Your task to perform on an android device: Search for logitech g933 on walmart, select the first entry, and add it to the cart. Image 0: 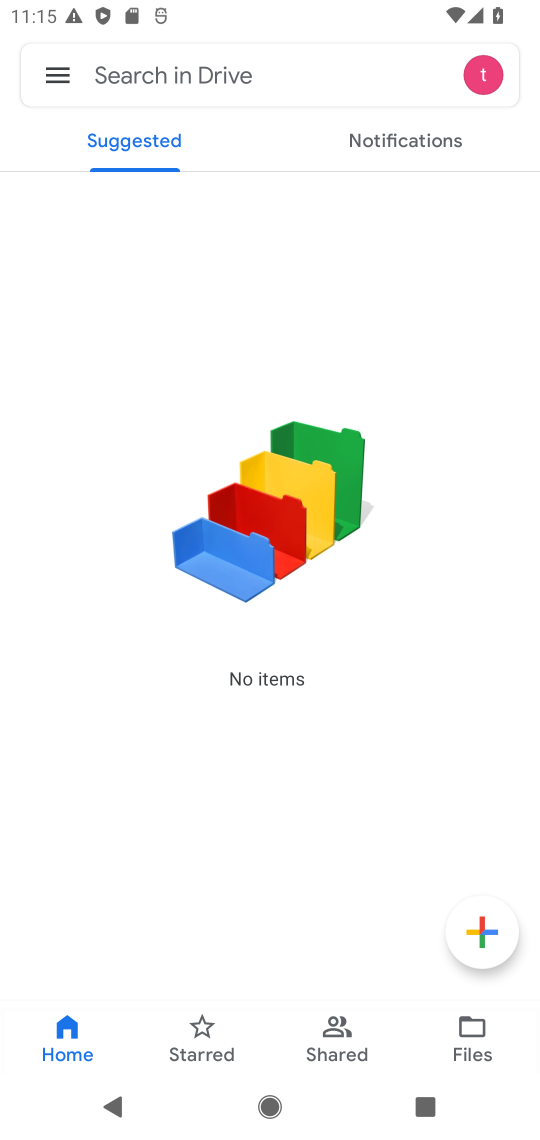
Step 0: press home button
Your task to perform on an android device: Search for logitech g933 on walmart, select the first entry, and add it to the cart. Image 1: 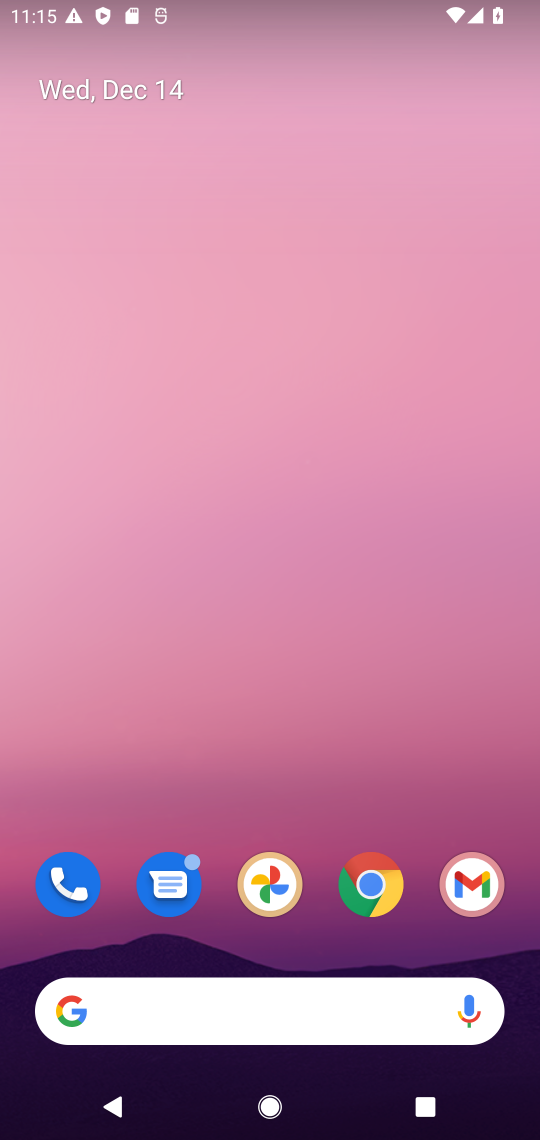
Step 1: click (376, 897)
Your task to perform on an android device: Search for logitech g933 on walmart, select the first entry, and add it to the cart. Image 2: 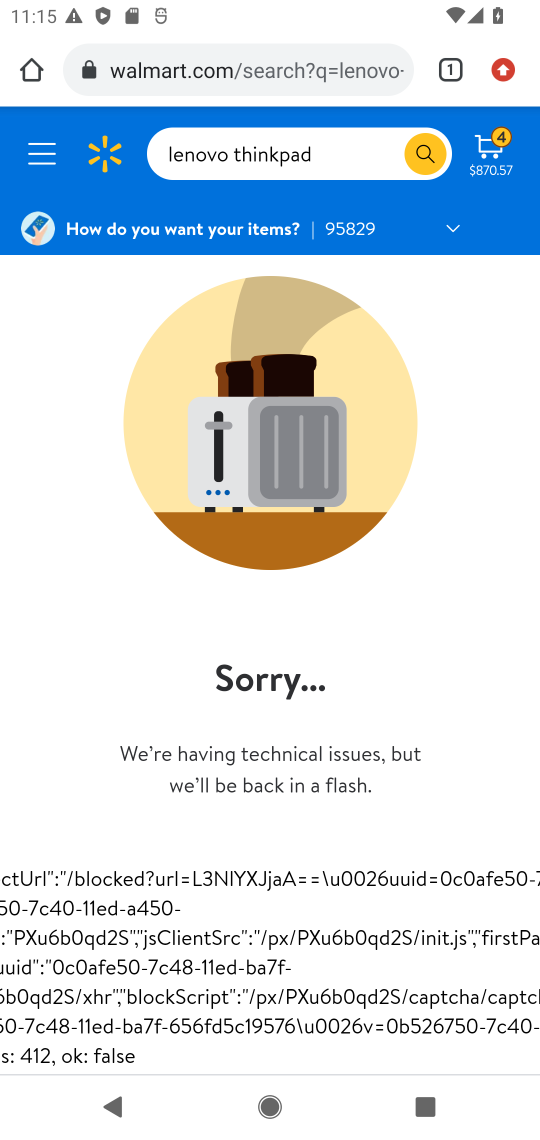
Step 2: click (245, 168)
Your task to perform on an android device: Search for logitech g933 on walmart, select the first entry, and add it to the cart. Image 3: 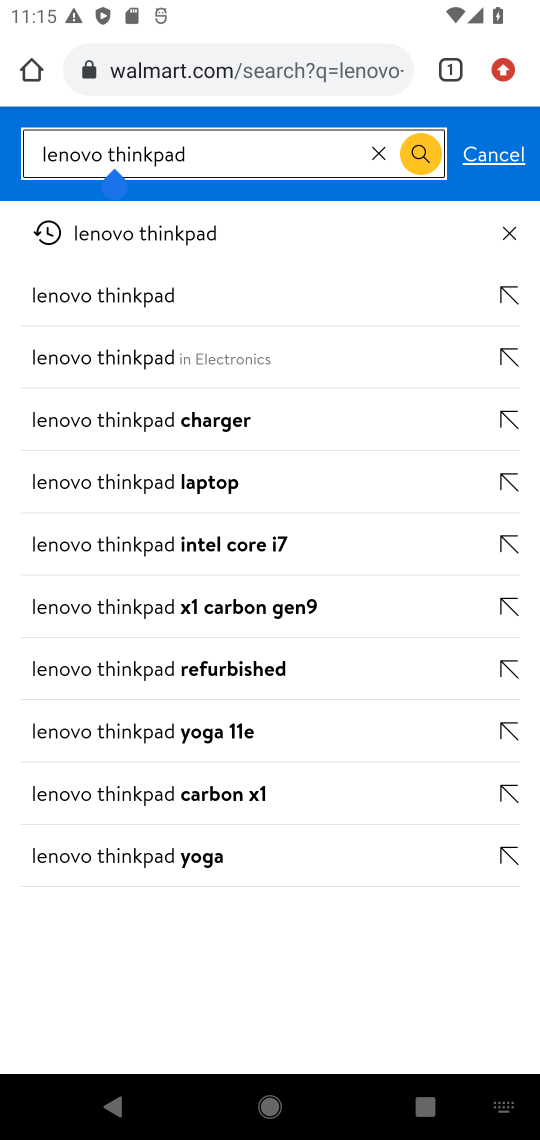
Step 3: click (378, 154)
Your task to perform on an android device: Search for logitech g933 on walmart, select the first entry, and add it to the cart. Image 4: 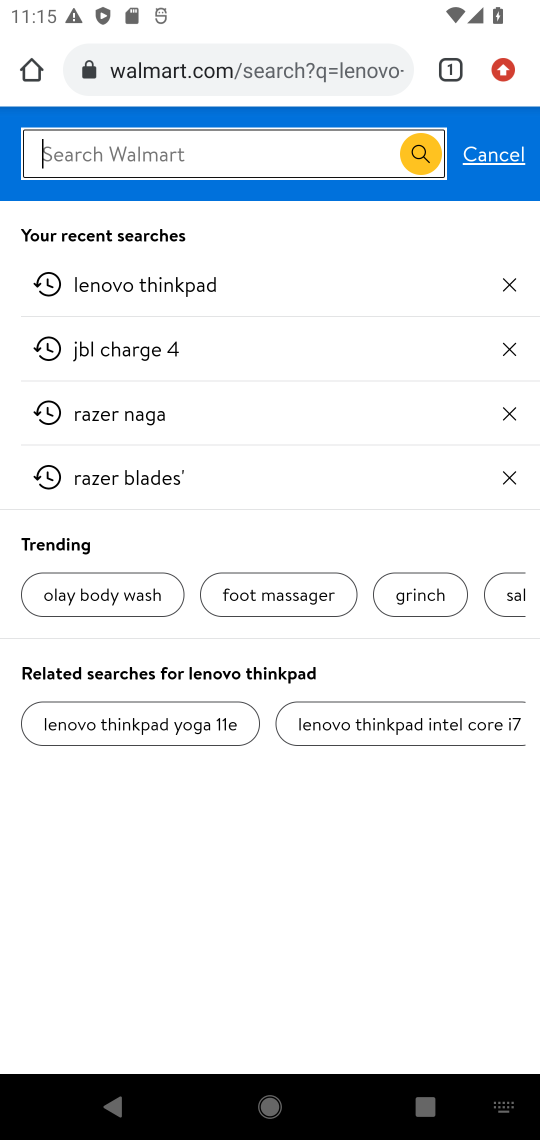
Step 4: type "logitech g933"
Your task to perform on an android device: Search for logitech g933 on walmart, select the first entry, and add it to the cart. Image 5: 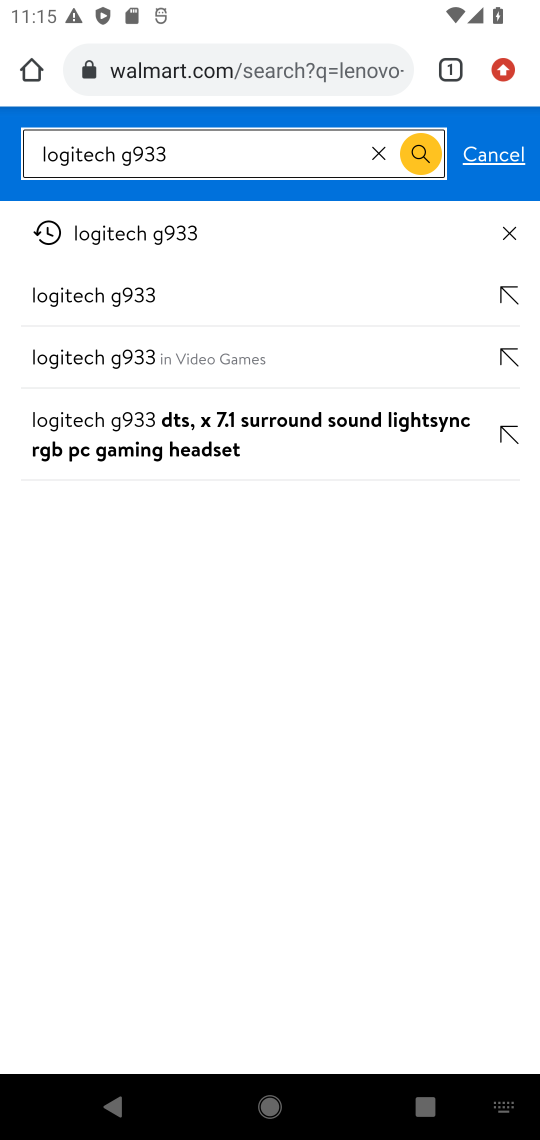
Step 5: click (423, 149)
Your task to perform on an android device: Search for logitech g933 on walmart, select the first entry, and add it to the cart. Image 6: 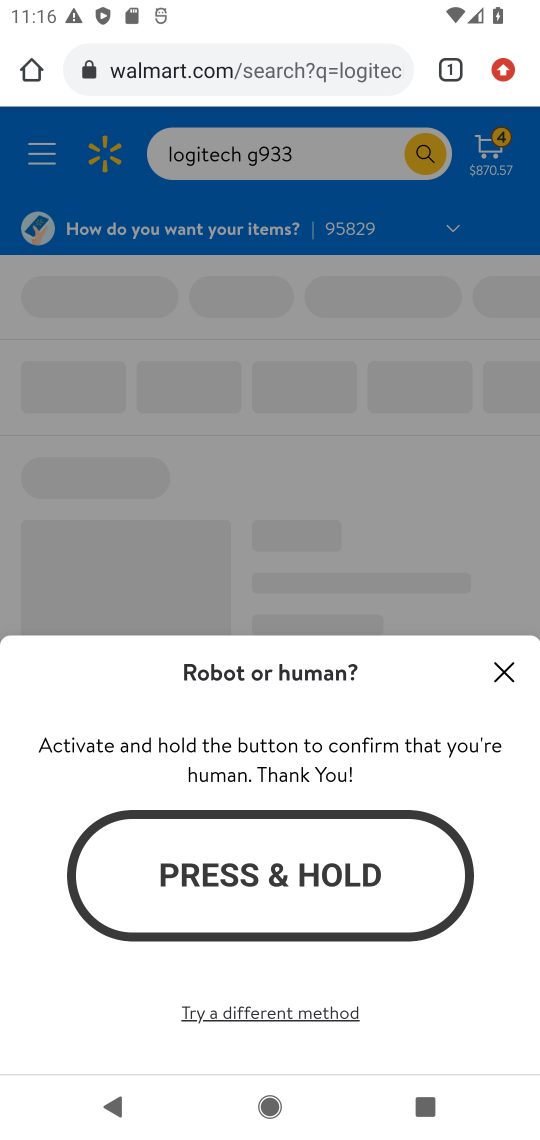
Step 6: click (280, 896)
Your task to perform on an android device: Search for logitech g933 on walmart, select the first entry, and add it to the cart. Image 7: 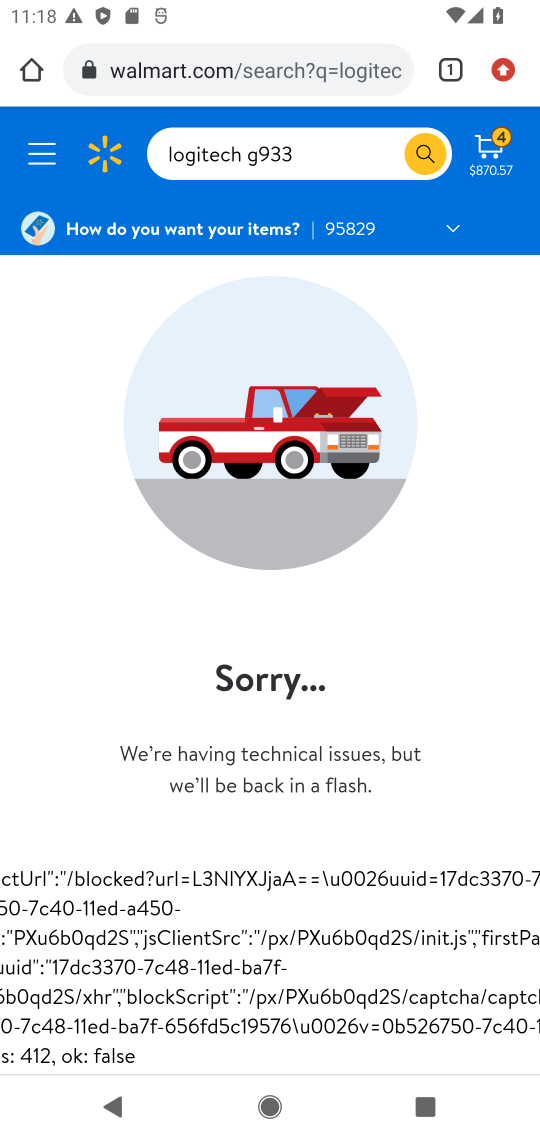
Step 7: task complete